Your task to perform on an android device: Do I have any events today? Image 0: 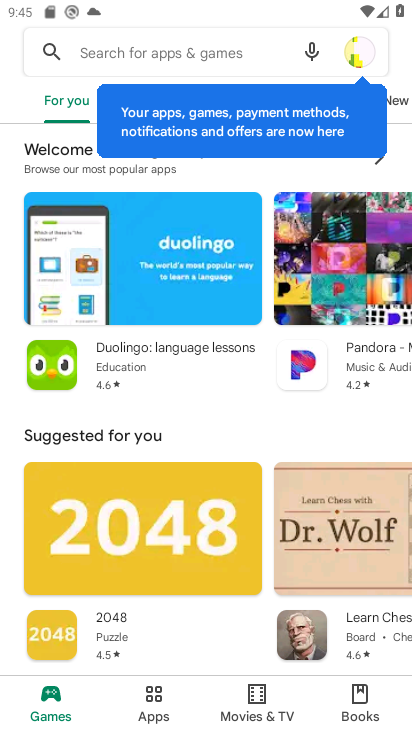
Step 0: press home button
Your task to perform on an android device: Do I have any events today? Image 1: 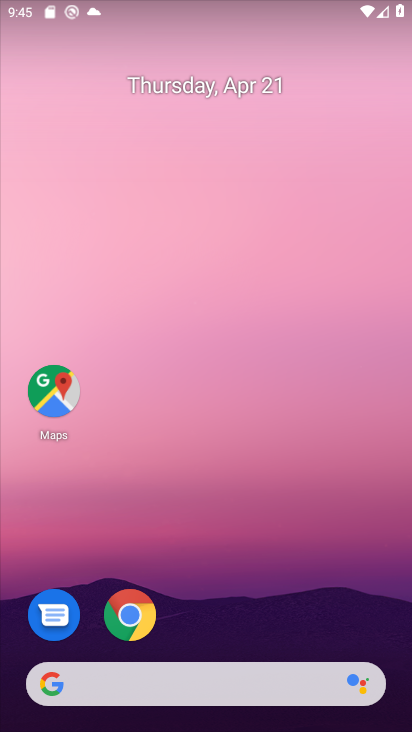
Step 1: drag from (236, 631) to (267, 44)
Your task to perform on an android device: Do I have any events today? Image 2: 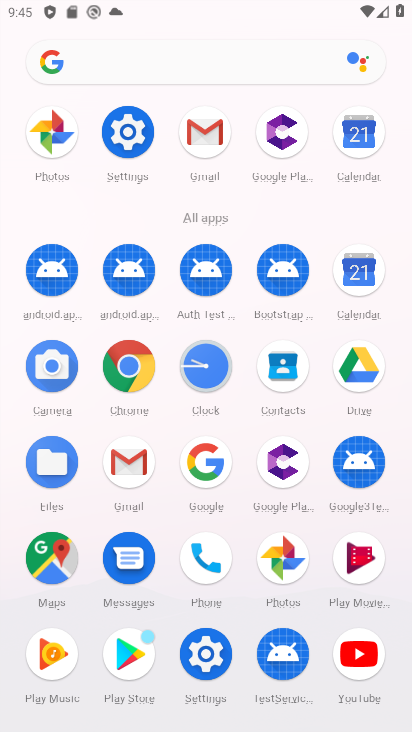
Step 2: click (357, 267)
Your task to perform on an android device: Do I have any events today? Image 3: 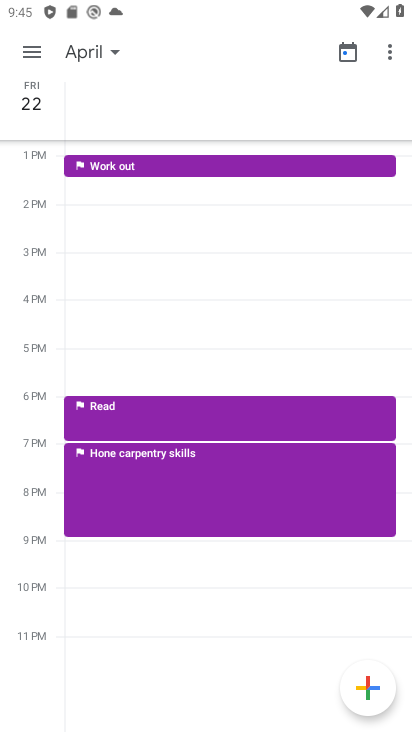
Step 3: click (39, 101)
Your task to perform on an android device: Do I have any events today? Image 4: 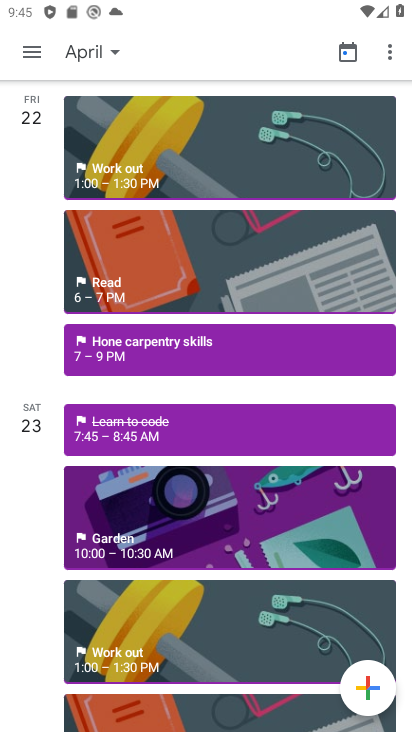
Step 4: drag from (43, 139) to (31, 401)
Your task to perform on an android device: Do I have any events today? Image 5: 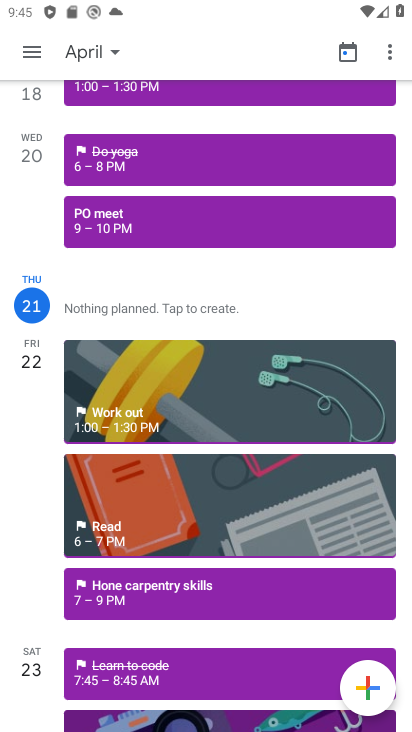
Step 5: click (34, 317)
Your task to perform on an android device: Do I have any events today? Image 6: 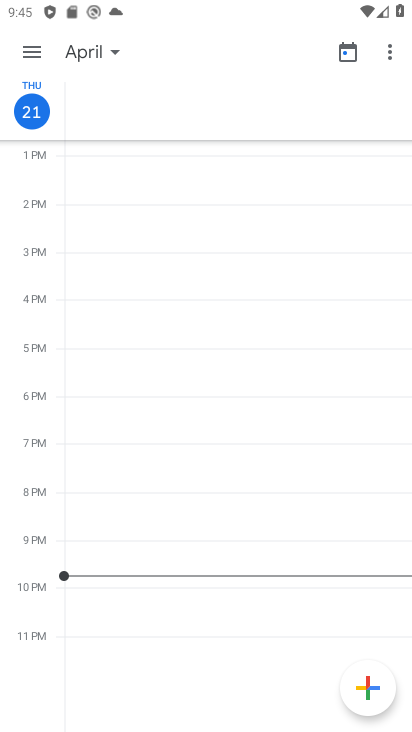
Step 6: task complete